Your task to perform on an android device: Check the settings for the Lyft app Image 0: 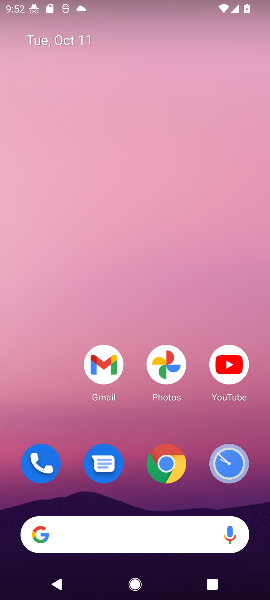
Step 0: drag from (137, 500) to (133, 184)
Your task to perform on an android device: Check the settings for the Lyft app Image 1: 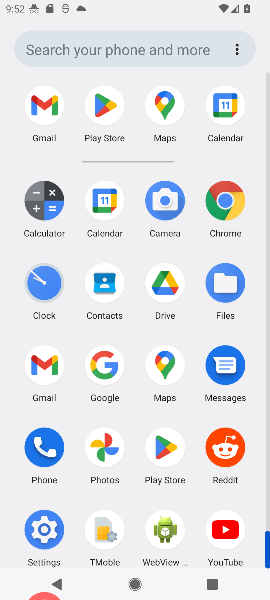
Step 1: click (111, 362)
Your task to perform on an android device: Check the settings for the Lyft app Image 2: 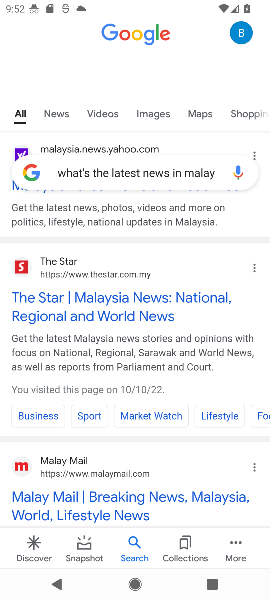
Step 2: click (133, 170)
Your task to perform on an android device: Check the settings for the Lyft app Image 3: 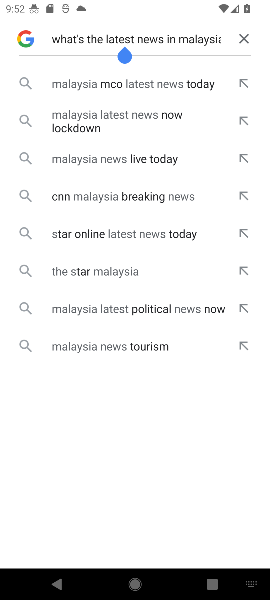
Step 3: click (242, 33)
Your task to perform on an android device: Check the settings for the Lyft app Image 4: 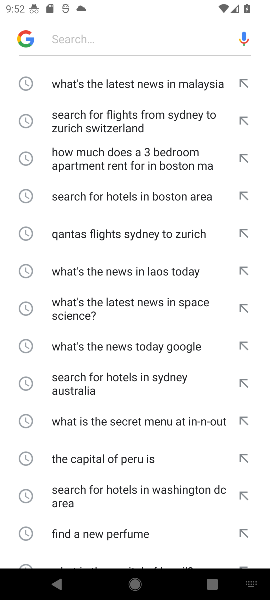
Step 4: click (77, 32)
Your task to perform on an android device: Check the settings for the Lyft app Image 5: 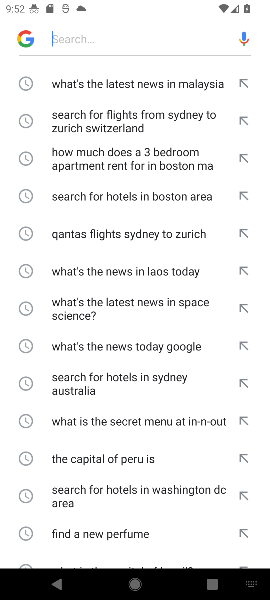
Step 5: type "Check the settings for the Lyft app "
Your task to perform on an android device: Check the settings for the Lyft app Image 6: 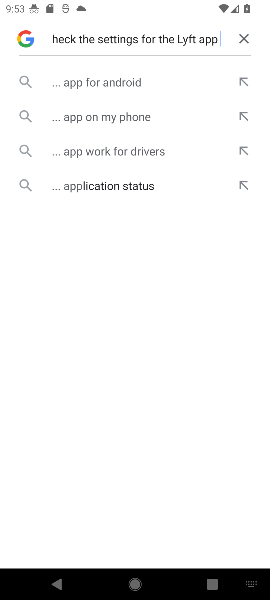
Step 6: click (121, 80)
Your task to perform on an android device: Check the settings for the Lyft app Image 7: 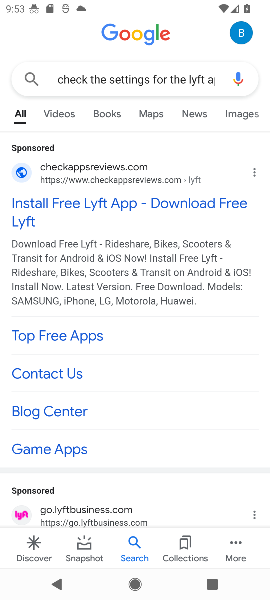
Step 7: click (113, 199)
Your task to perform on an android device: Check the settings for the Lyft app Image 8: 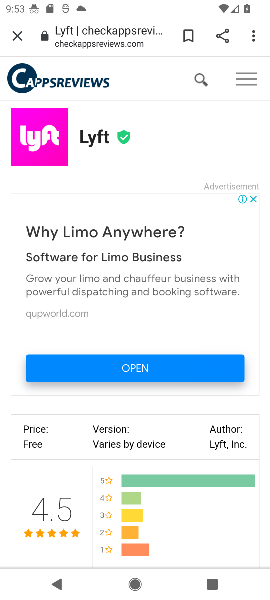
Step 8: drag from (154, 416) to (164, 209)
Your task to perform on an android device: Check the settings for the Lyft app Image 9: 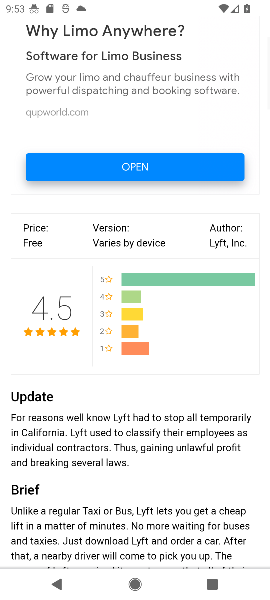
Step 9: drag from (223, 84) to (211, 453)
Your task to perform on an android device: Check the settings for the Lyft app Image 10: 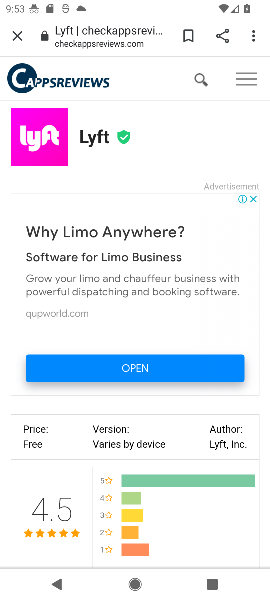
Step 10: click (249, 72)
Your task to perform on an android device: Check the settings for the Lyft app Image 11: 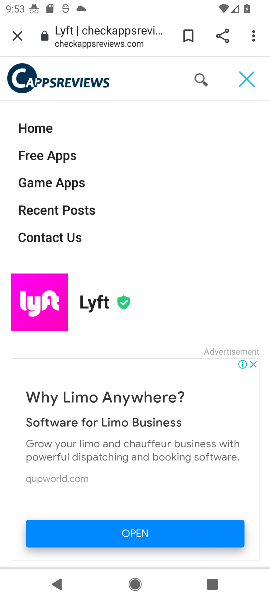
Step 11: click (249, 72)
Your task to perform on an android device: Check the settings for the Lyft app Image 12: 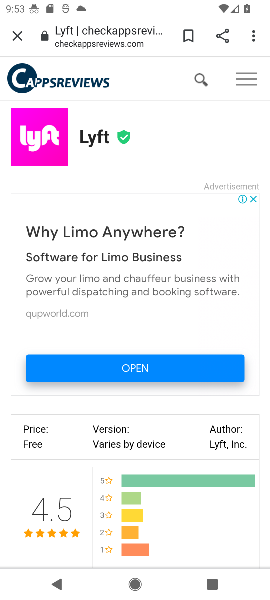
Step 12: press back button
Your task to perform on an android device: Check the settings for the Lyft app Image 13: 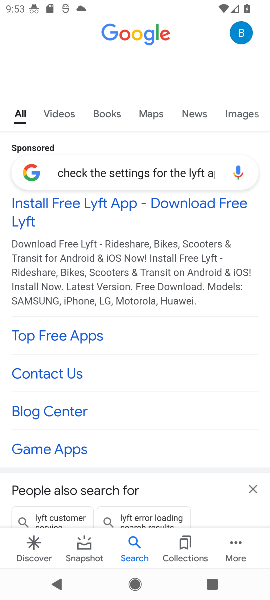
Step 13: drag from (103, 454) to (125, 242)
Your task to perform on an android device: Check the settings for the Lyft app Image 14: 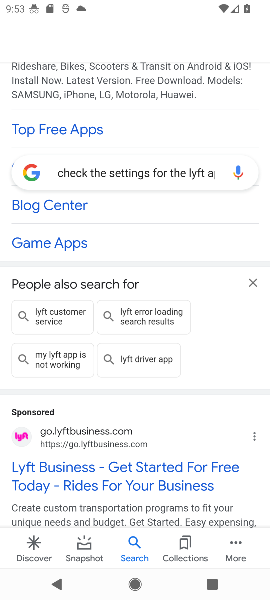
Step 14: click (134, 466)
Your task to perform on an android device: Check the settings for the Lyft app Image 15: 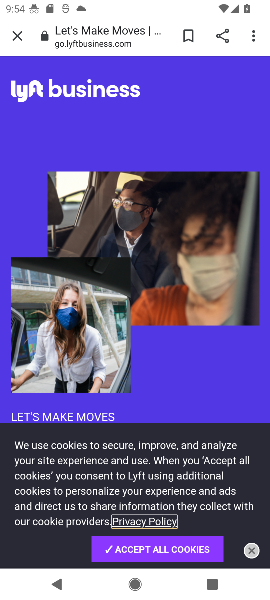
Step 15: click (252, 545)
Your task to perform on an android device: Check the settings for the Lyft app Image 16: 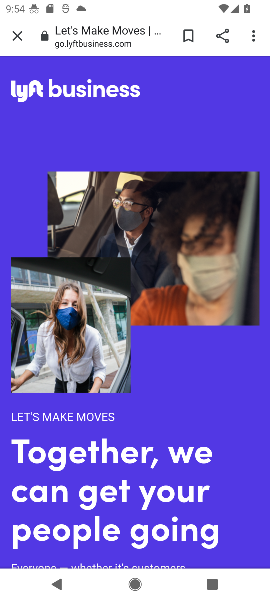
Step 16: task complete